Your task to perform on an android device: change the clock display to digital Image 0: 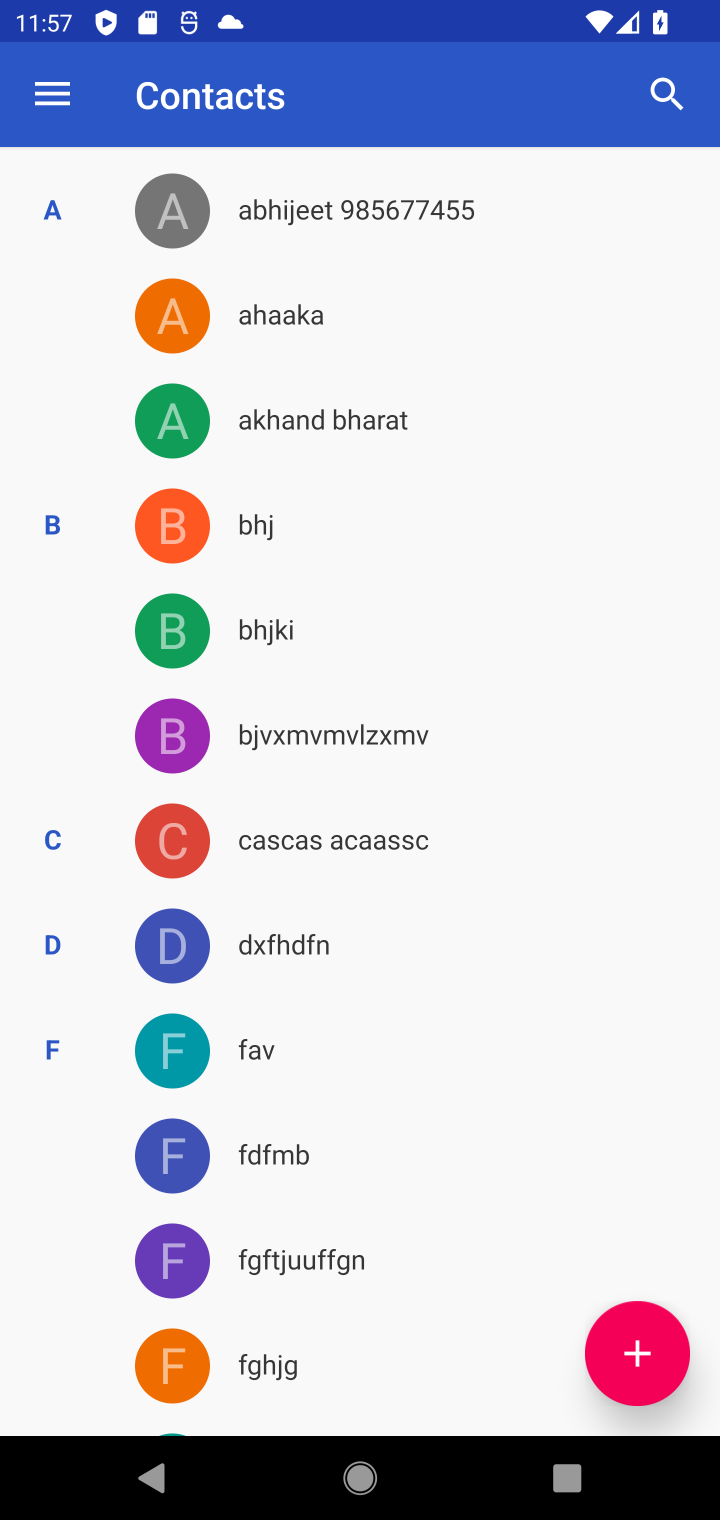
Step 0: press home button
Your task to perform on an android device: change the clock display to digital Image 1: 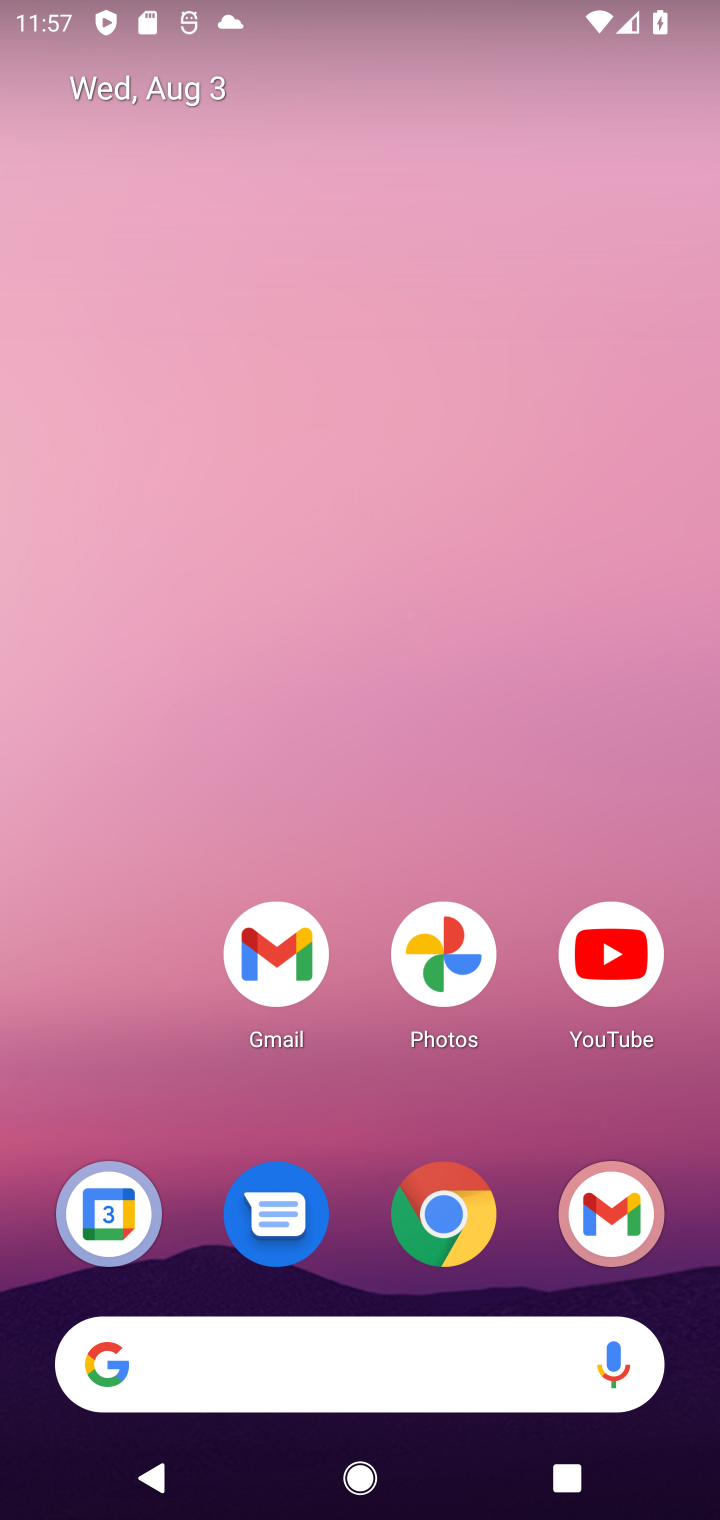
Step 1: drag from (446, 1293) to (383, 128)
Your task to perform on an android device: change the clock display to digital Image 2: 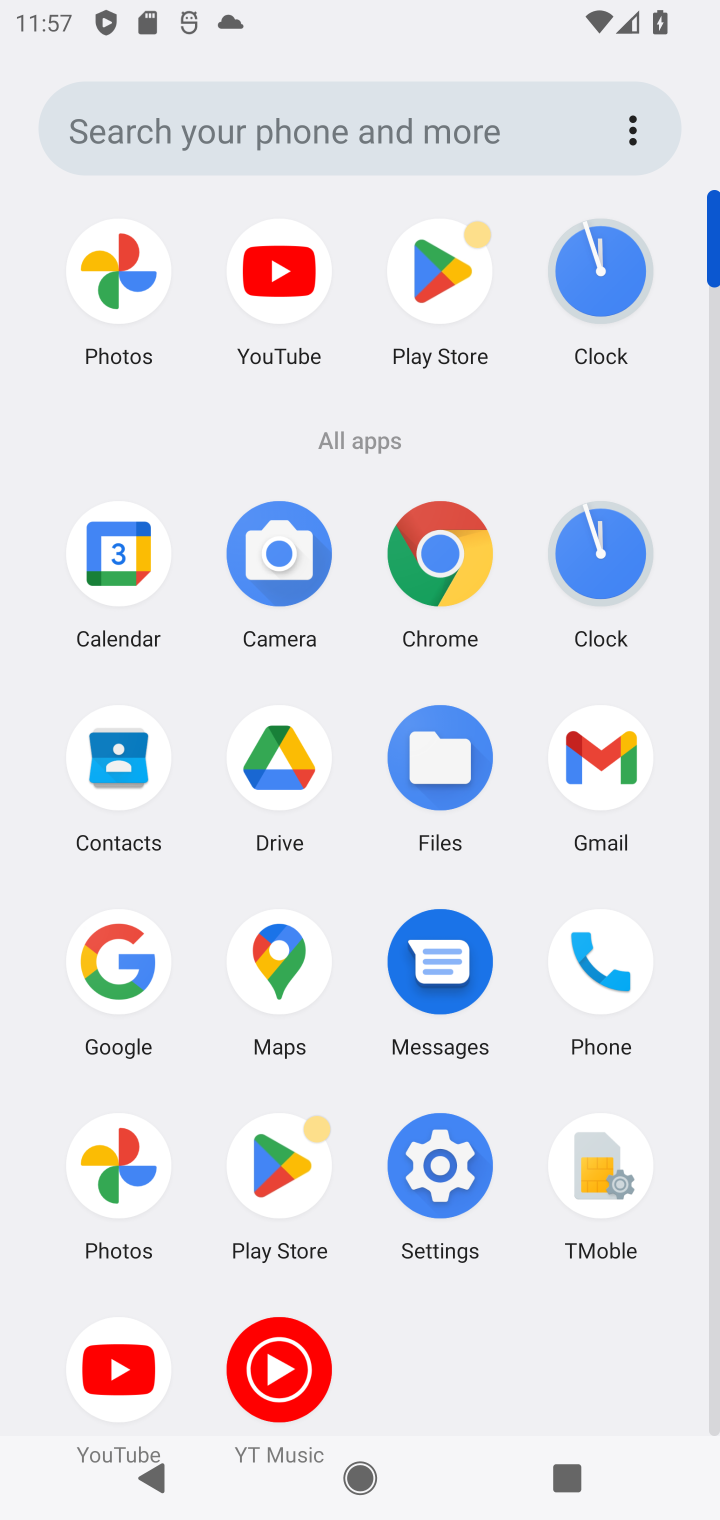
Step 2: click (576, 563)
Your task to perform on an android device: change the clock display to digital Image 3: 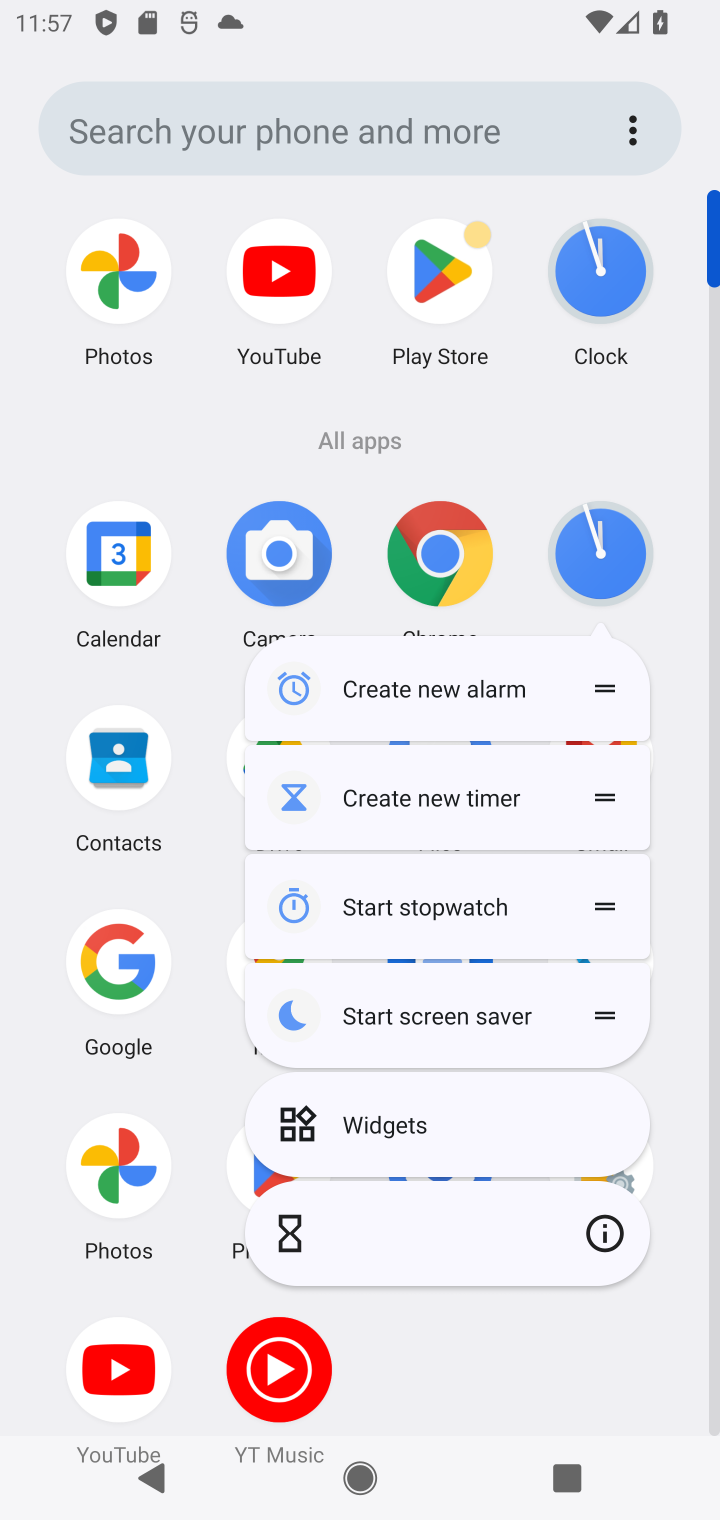
Step 3: click (604, 553)
Your task to perform on an android device: change the clock display to digital Image 4: 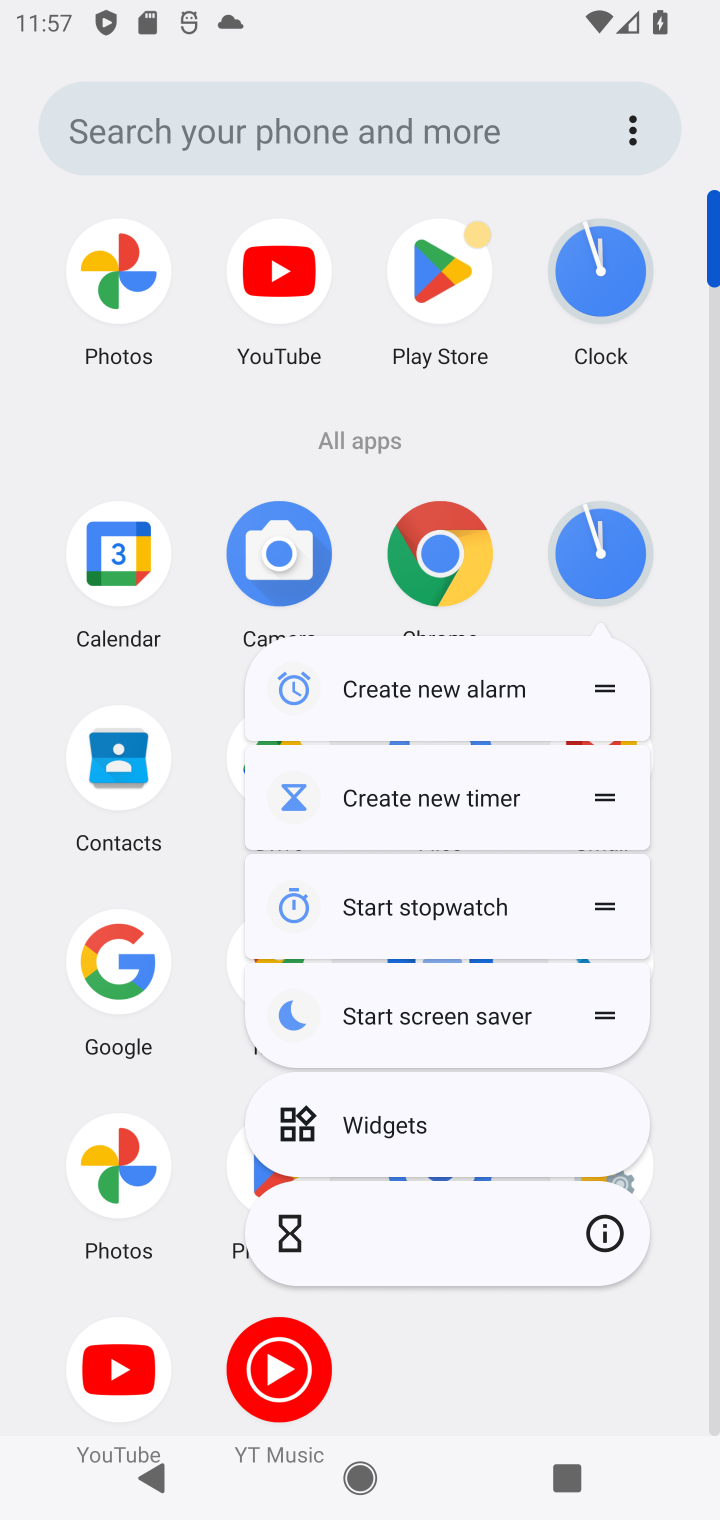
Step 4: click (604, 553)
Your task to perform on an android device: change the clock display to digital Image 5: 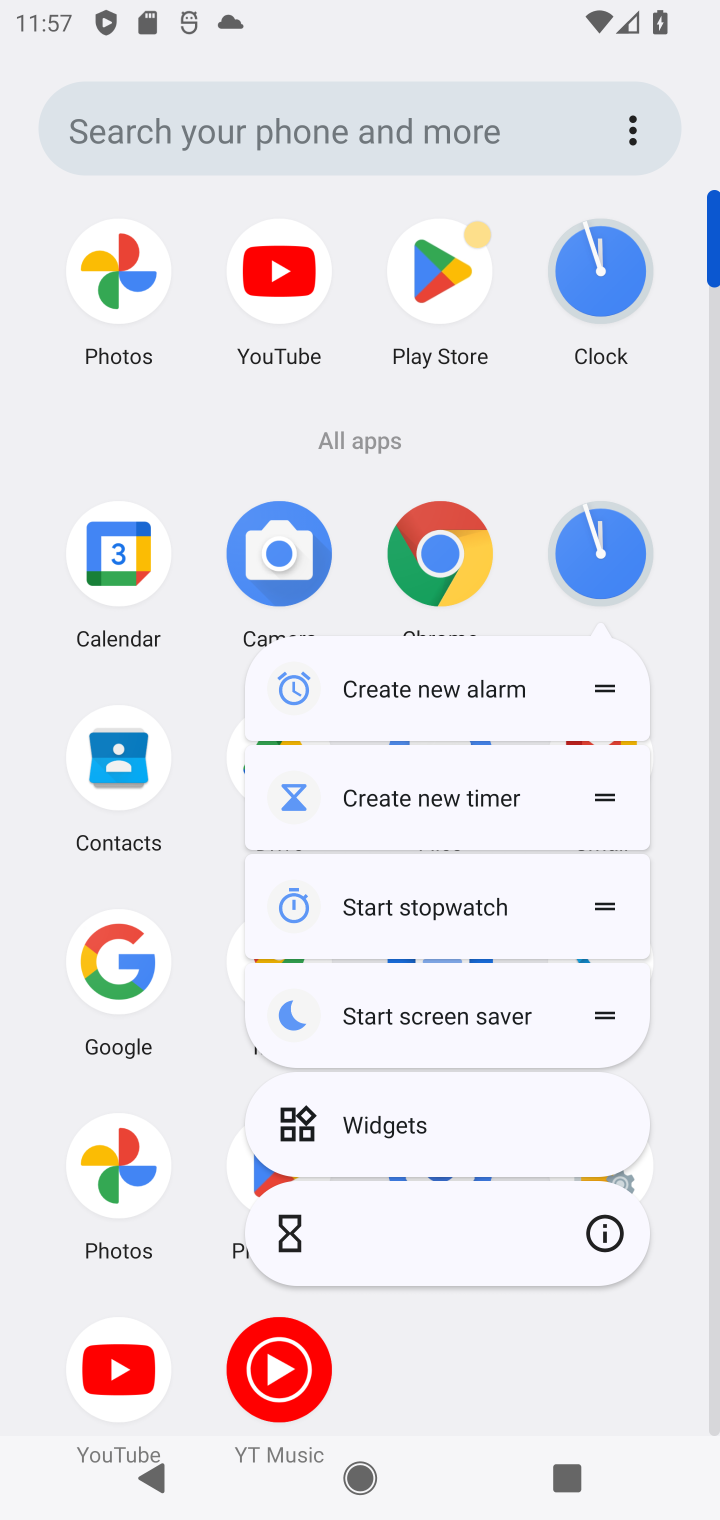
Step 5: click (604, 553)
Your task to perform on an android device: change the clock display to digital Image 6: 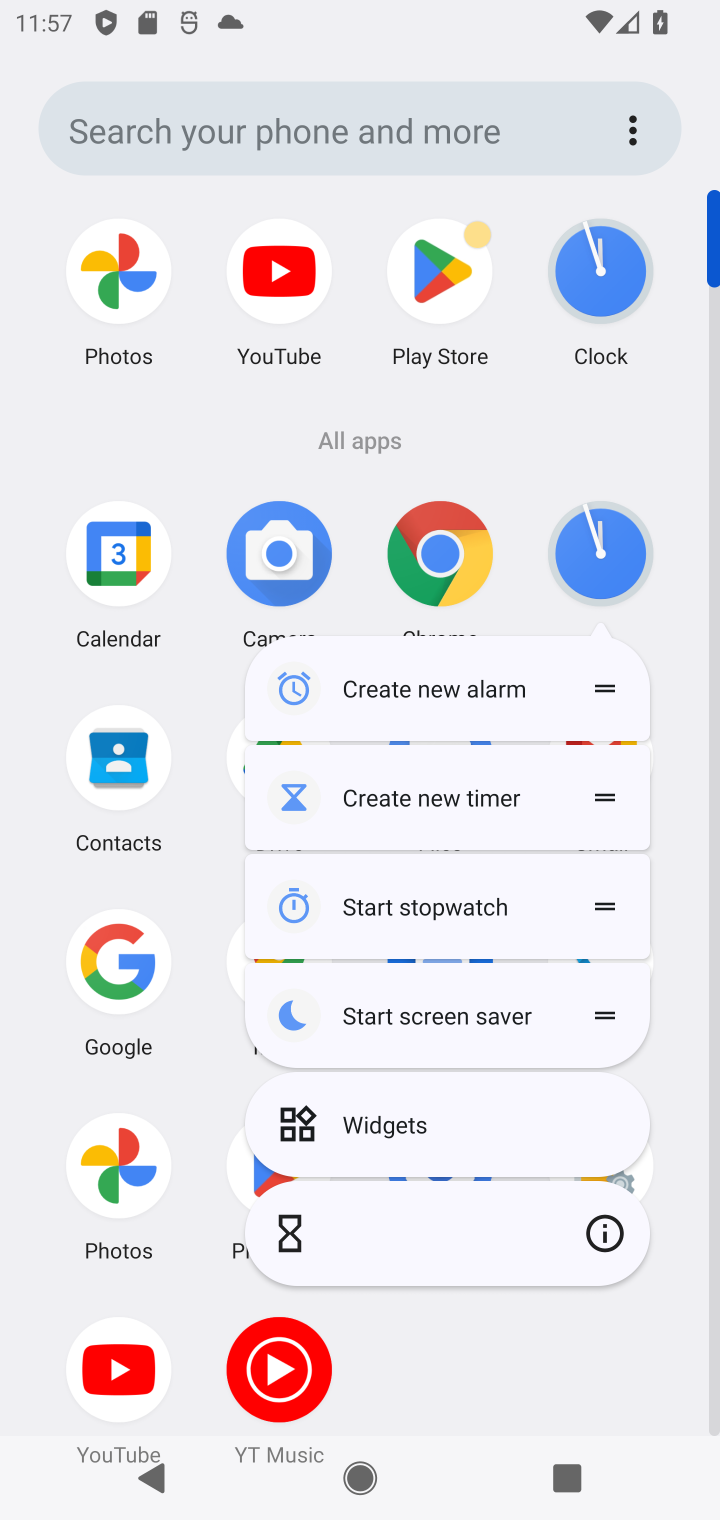
Step 6: click (556, 505)
Your task to perform on an android device: change the clock display to digital Image 7: 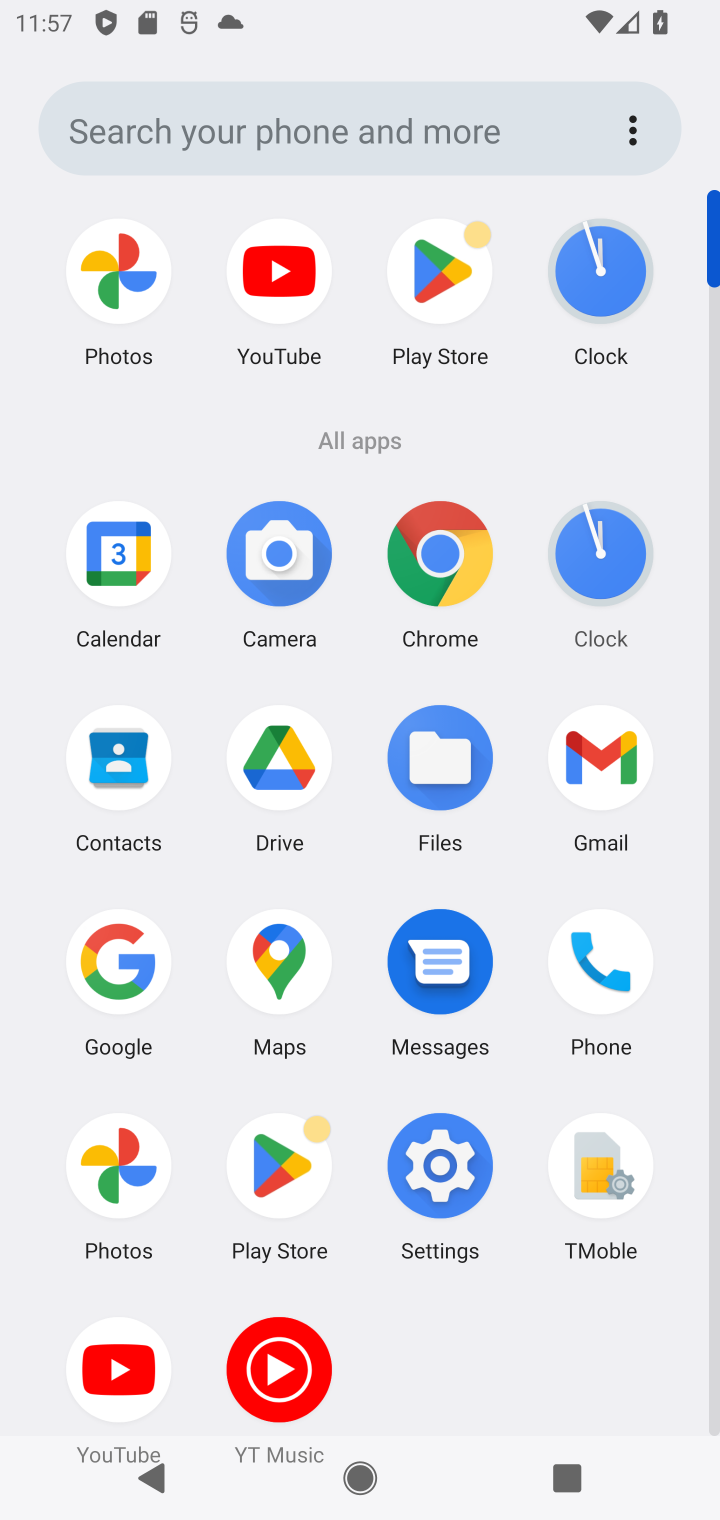
Step 7: click (556, 505)
Your task to perform on an android device: change the clock display to digital Image 8: 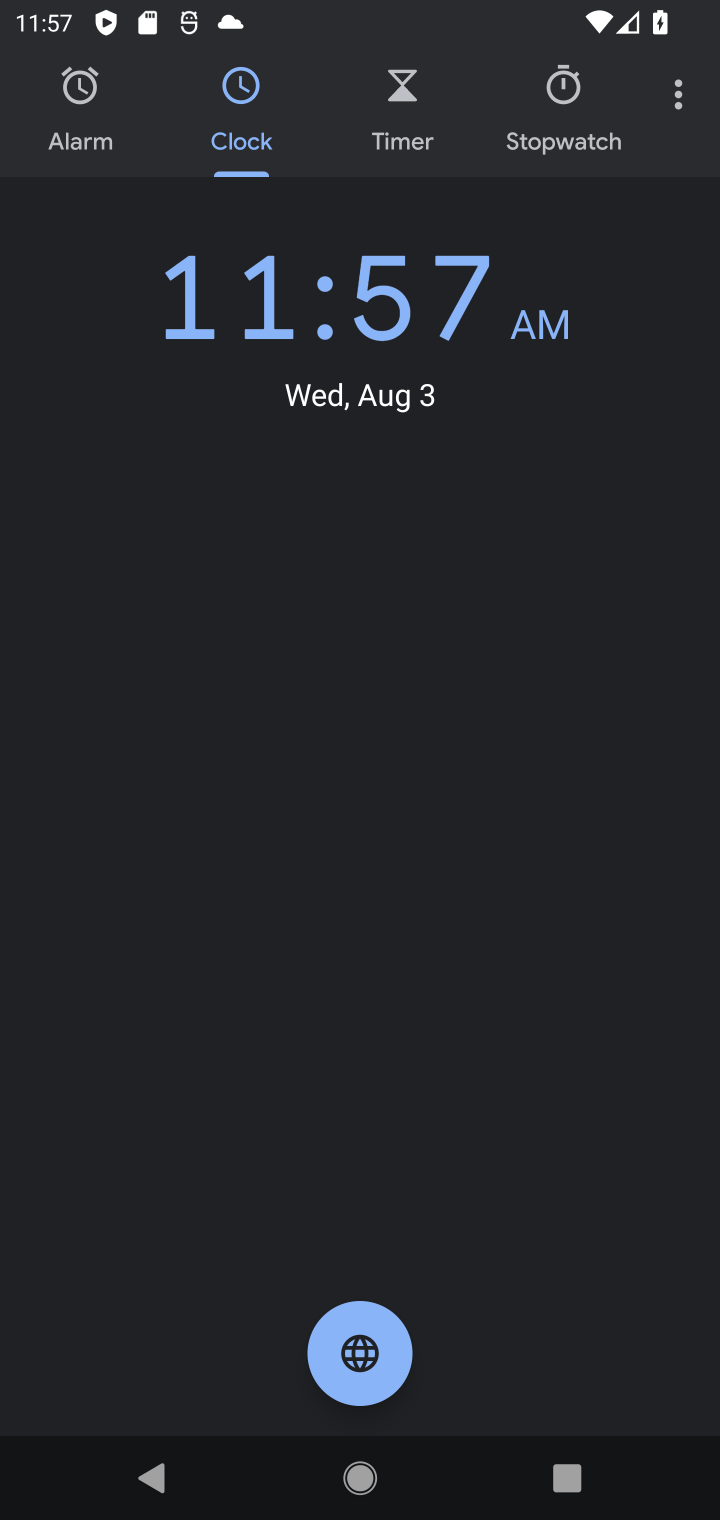
Step 8: click (688, 125)
Your task to perform on an android device: change the clock display to digital Image 9: 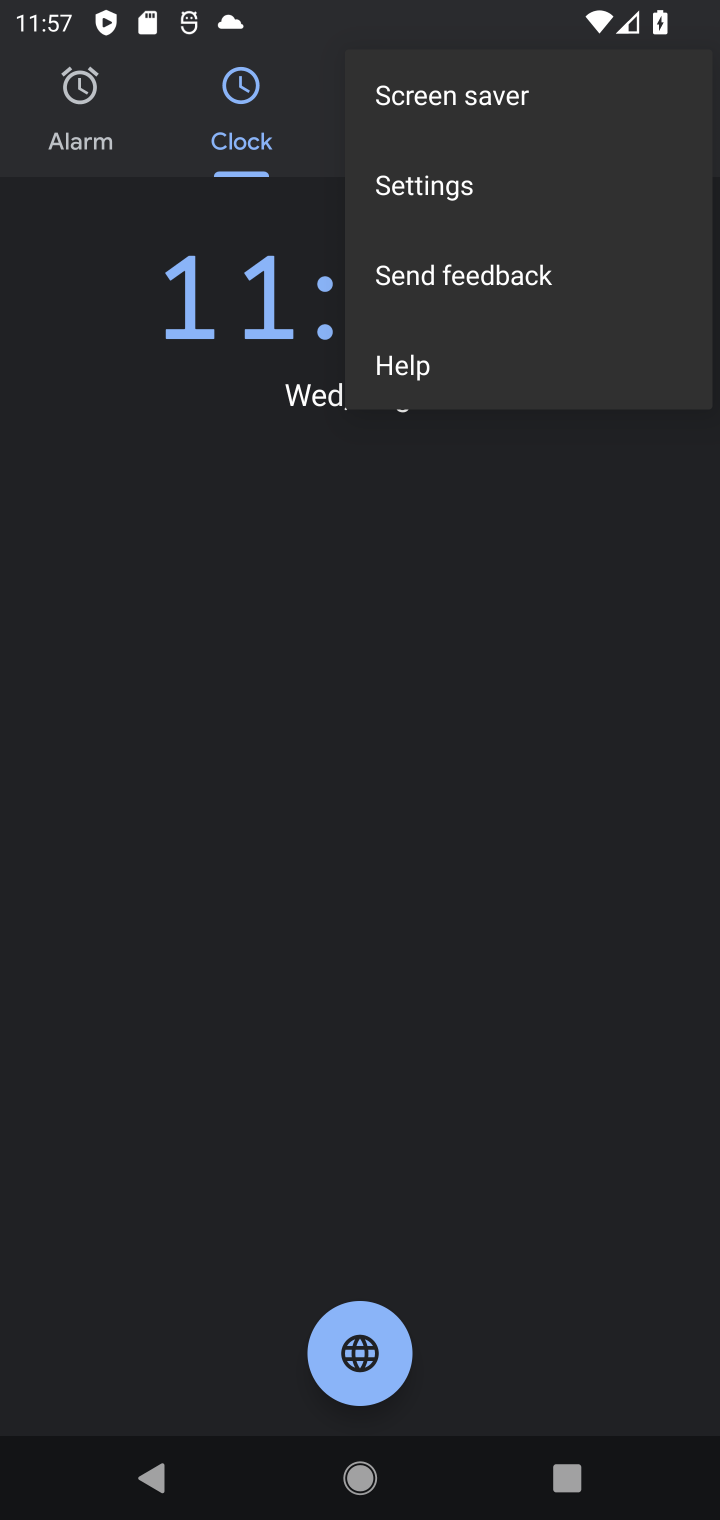
Step 9: click (497, 197)
Your task to perform on an android device: change the clock display to digital Image 10: 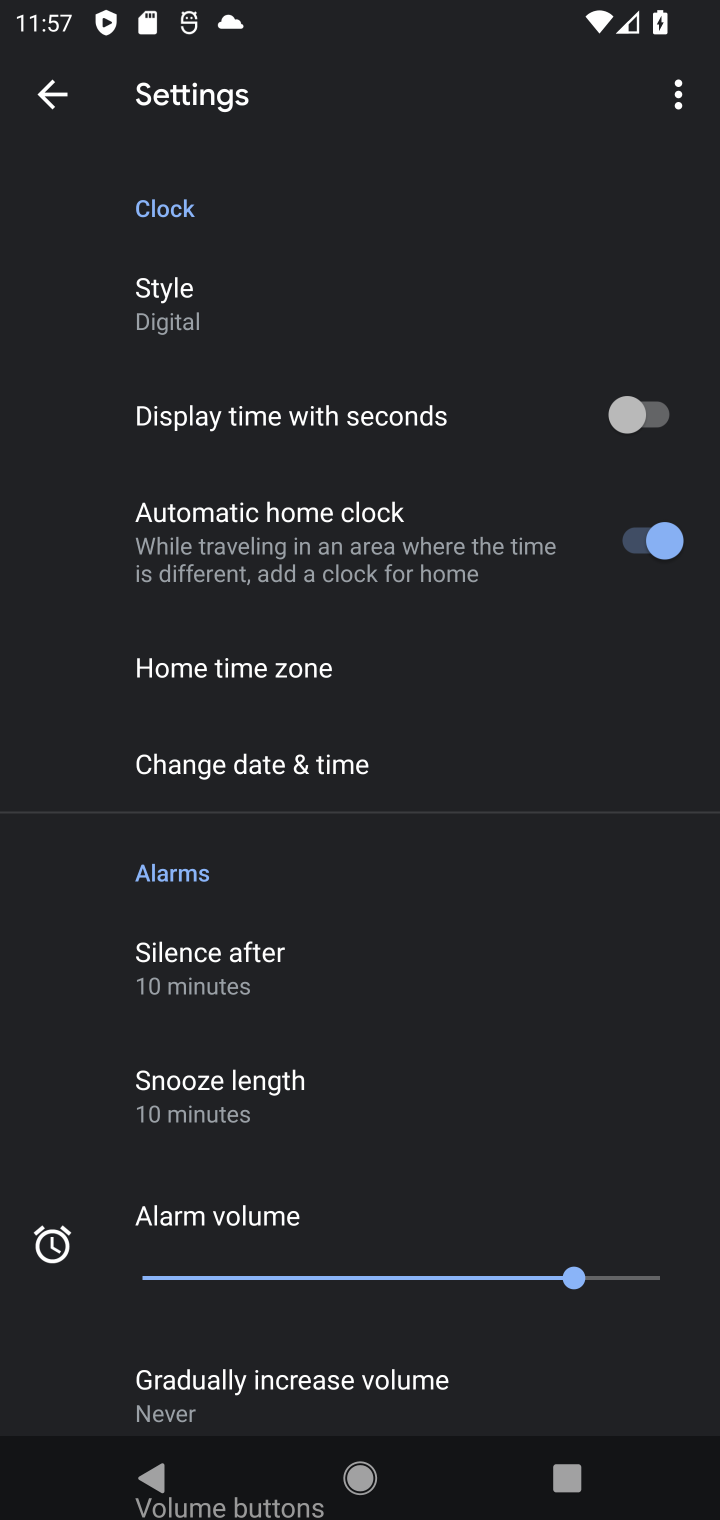
Step 10: click (254, 317)
Your task to perform on an android device: change the clock display to digital Image 11: 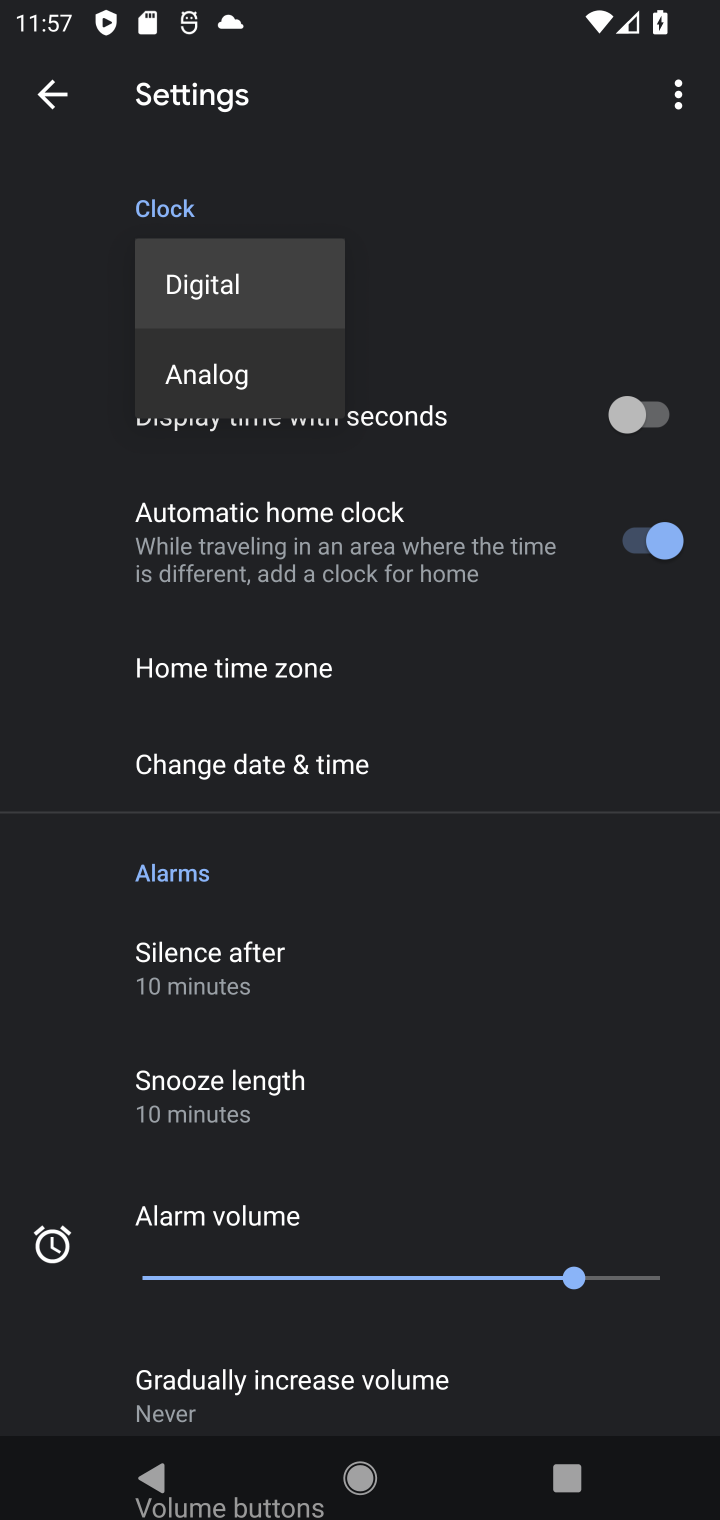
Step 11: task complete